Your task to perform on an android device: Go to eBay Image 0: 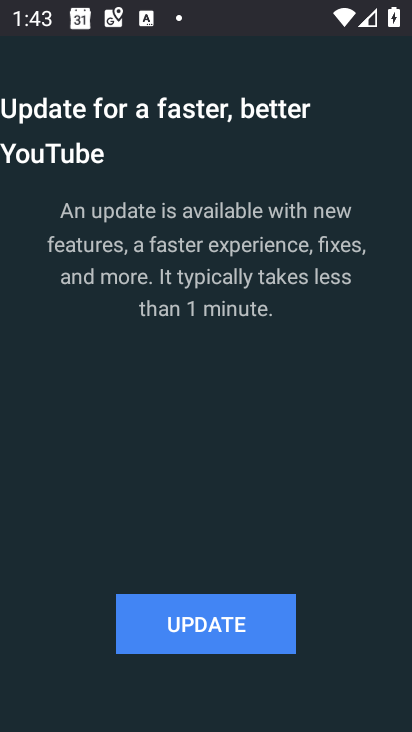
Step 0: press home button
Your task to perform on an android device: Go to eBay Image 1: 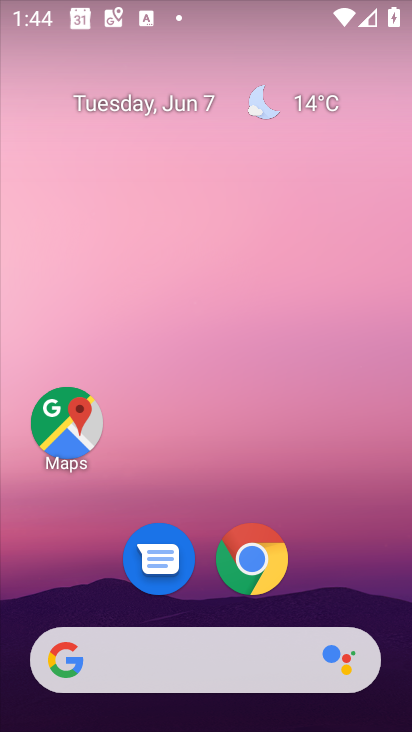
Step 1: click (261, 565)
Your task to perform on an android device: Go to eBay Image 2: 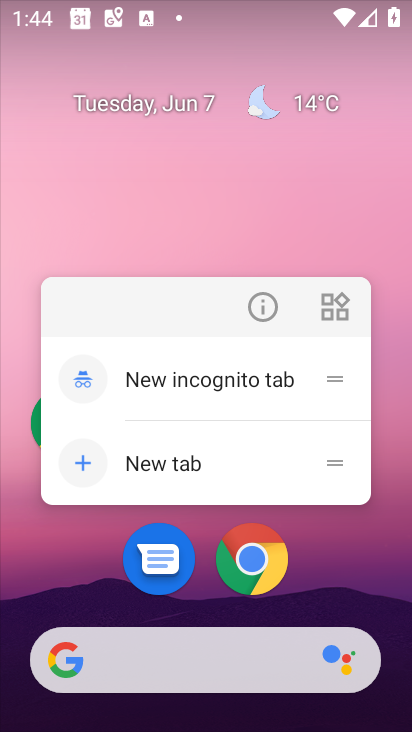
Step 2: click (261, 556)
Your task to perform on an android device: Go to eBay Image 3: 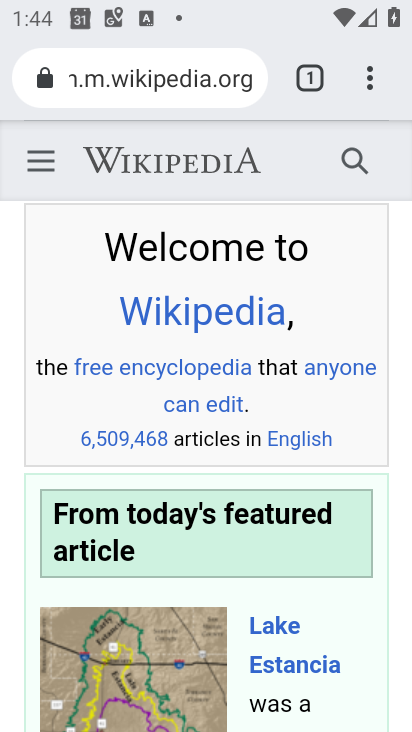
Step 3: click (318, 77)
Your task to perform on an android device: Go to eBay Image 4: 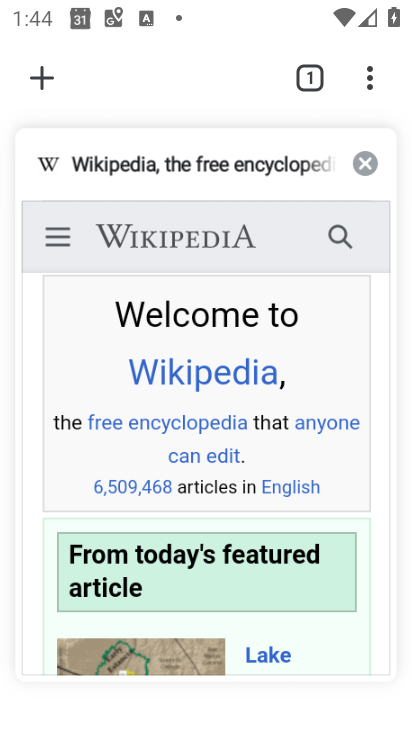
Step 4: click (369, 159)
Your task to perform on an android device: Go to eBay Image 5: 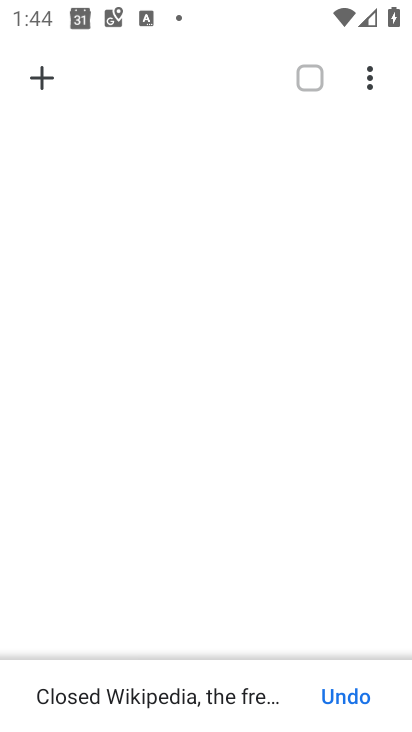
Step 5: click (45, 76)
Your task to perform on an android device: Go to eBay Image 6: 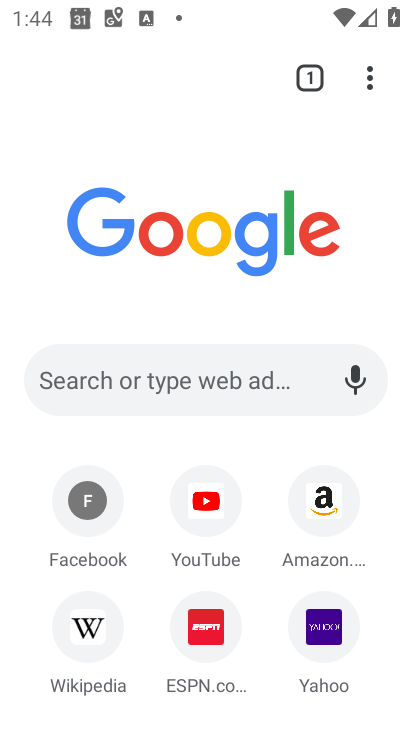
Step 6: drag from (15, 599) to (185, 165)
Your task to perform on an android device: Go to eBay Image 7: 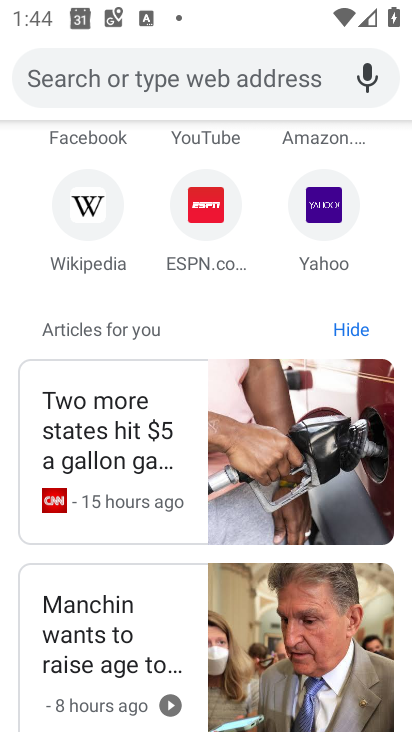
Step 7: drag from (189, 170) to (132, 559)
Your task to perform on an android device: Go to eBay Image 8: 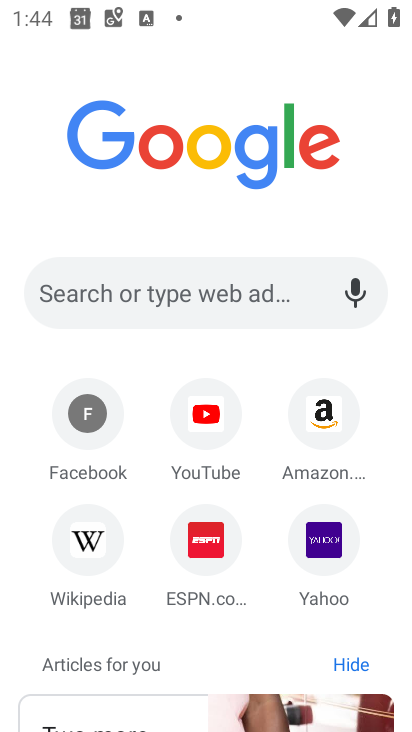
Step 8: click (178, 305)
Your task to perform on an android device: Go to eBay Image 9: 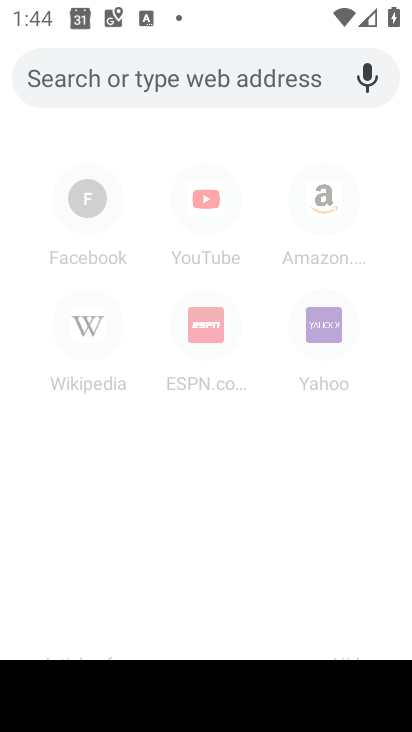
Step 9: type "eBay"
Your task to perform on an android device: Go to eBay Image 10: 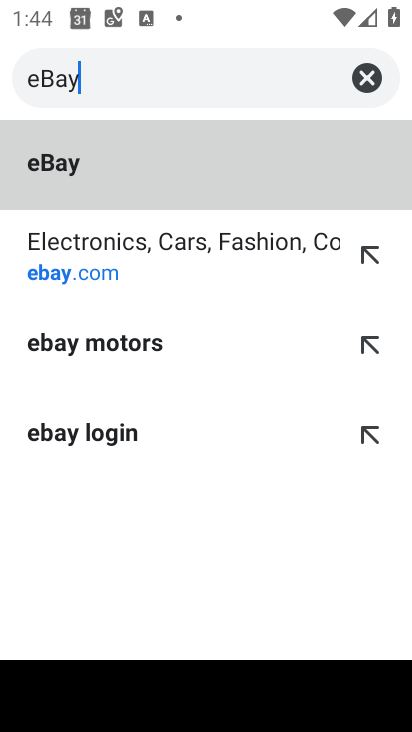
Step 10: type ""
Your task to perform on an android device: Go to eBay Image 11: 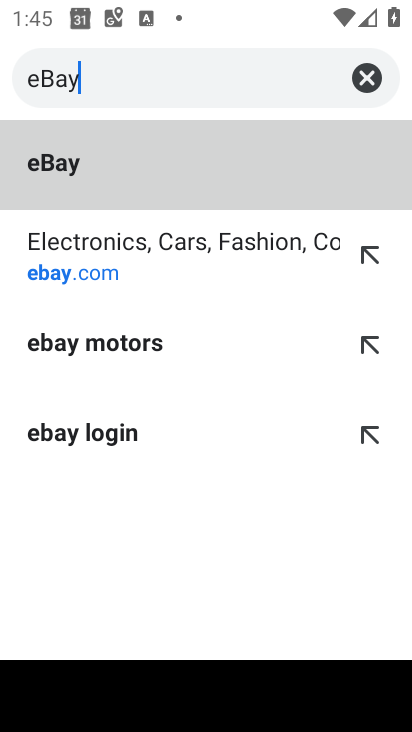
Step 11: click (115, 144)
Your task to perform on an android device: Go to eBay Image 12: 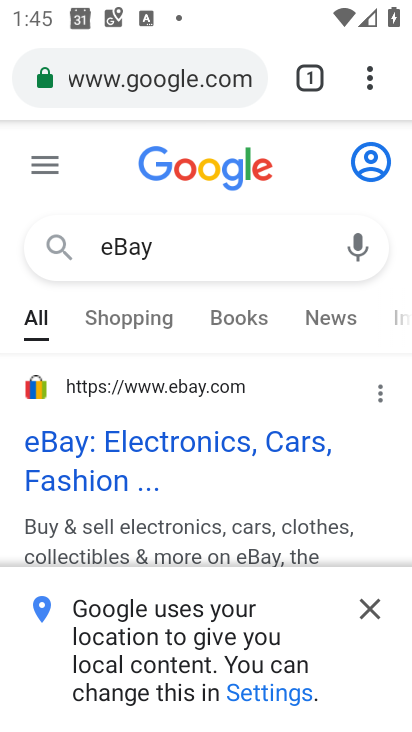
Step 12: click (161, 435)
Your task to perform on an android device: Go to eBay Image 13: 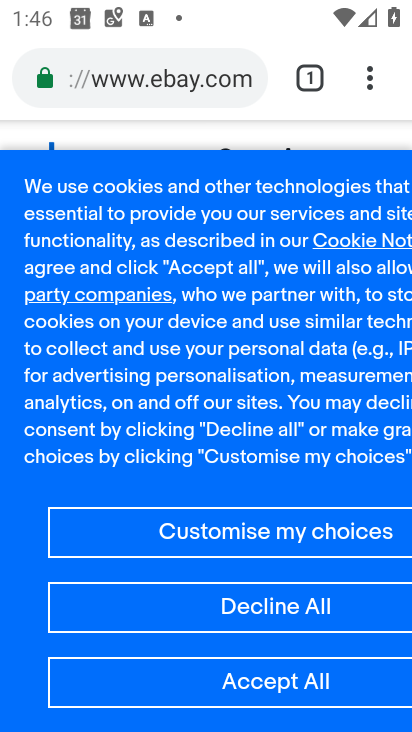
Step 13: task complete